Your task to perform on an android device: Check the news Image 0: 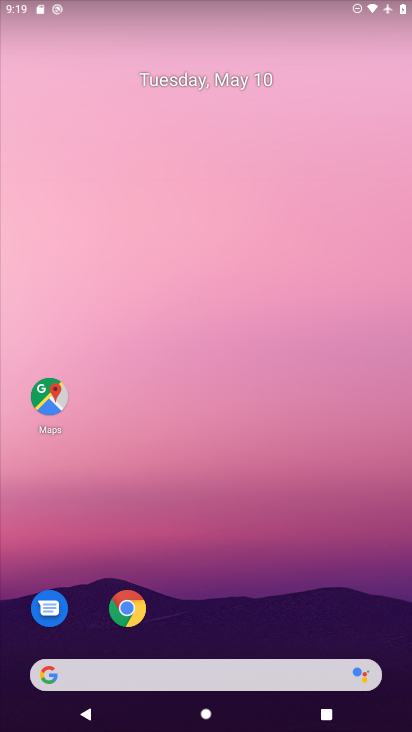
Step 0: drag from (214, 581) to (246, 352)
Your task to perform on an android device: Check the news Image 1: 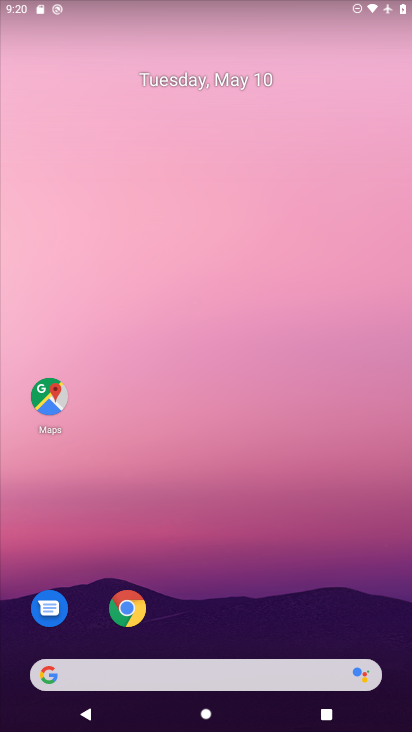
Step 1: drag from (263, 628) to (263, 293)
Your task to perform on an android device: Check the news Image 2: 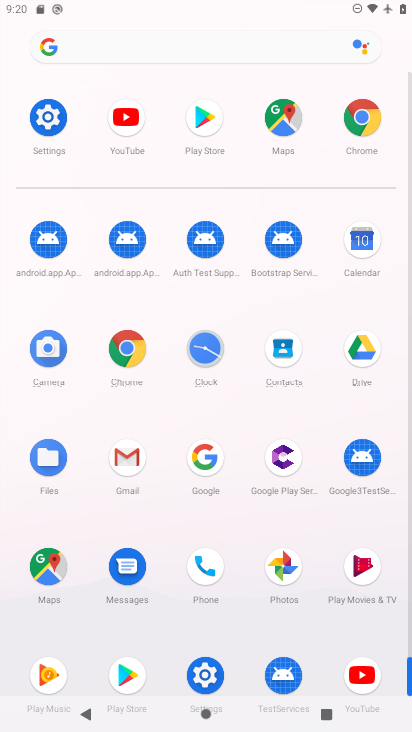
Step 2: click (130, 345)
Your task to perform on an android device: Check the news Image 3: 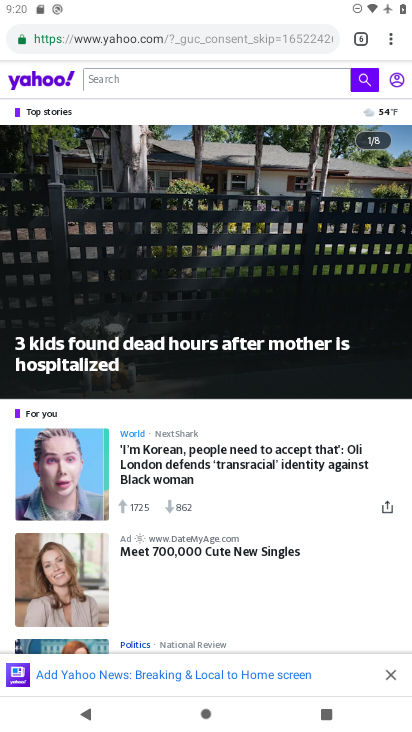
Step 3: click (381, 35)
Your task to perform on an android device: Check the news Image 4: 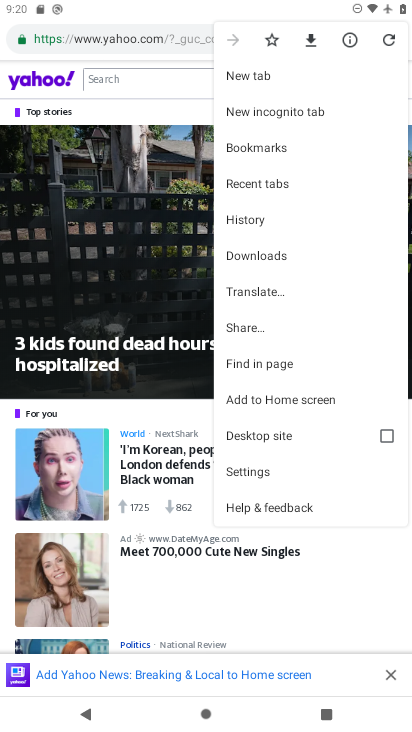
Step 4: click (255, 74)
Your task to perform on an android device: Check the news Image 5: 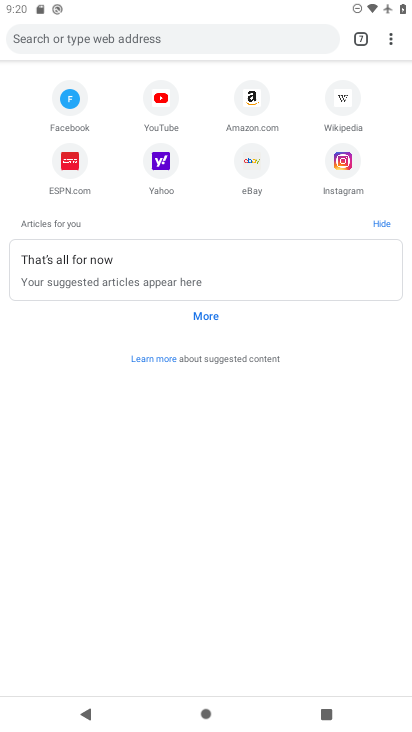
Step 5: click (170, 30)
Your task to perform on an android device: Check the news Image 6: 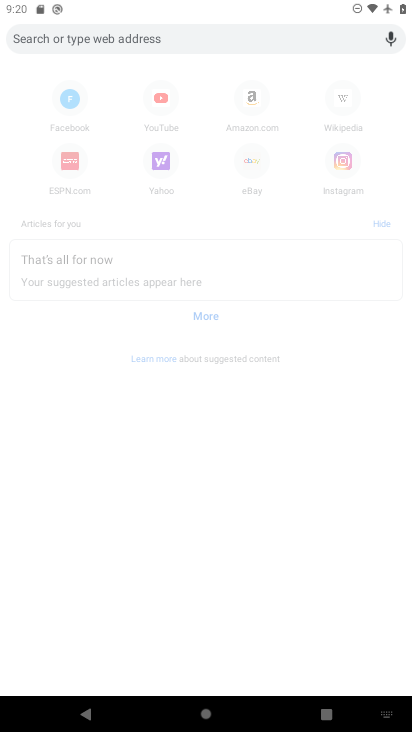
Step 6: click (238, 32)
Your task to perform on an android device: Check the news Image 7: 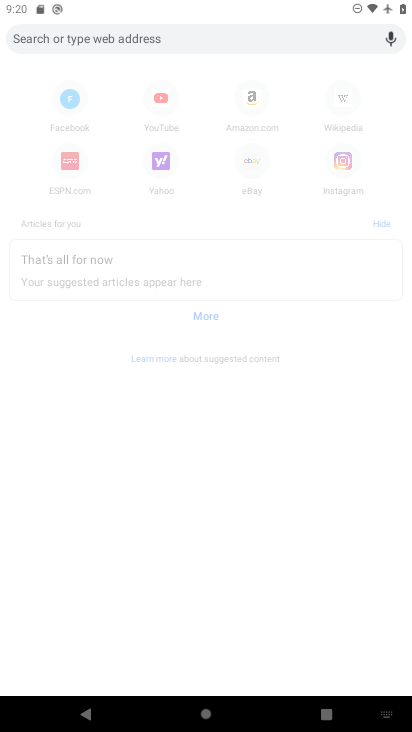
Step 7: type "Check the news"
Your task to perform on an android device: Check the news Image 8: 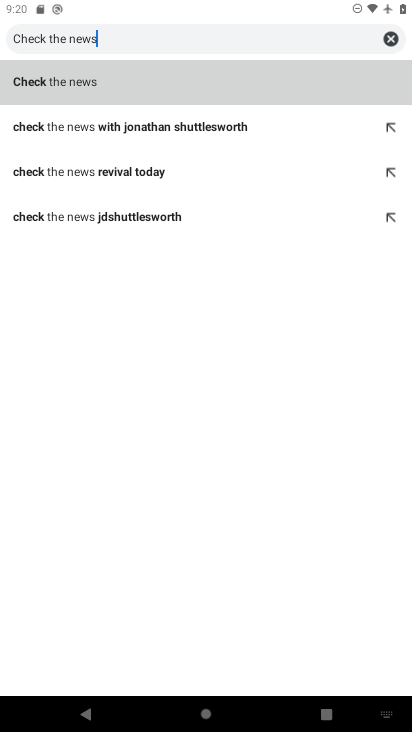
Step 8: click (143, 81)
Your task to perform on an android device: Check the news Image 9: 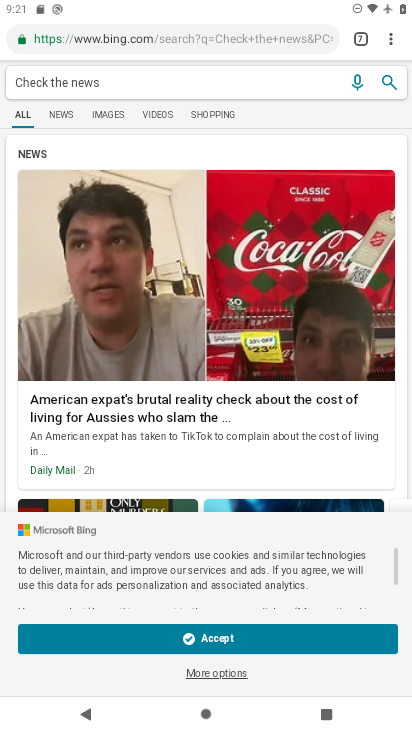
Step 9: task complete